Your task to perform on an android device: What's on my calendar tomorrow? Image 0: 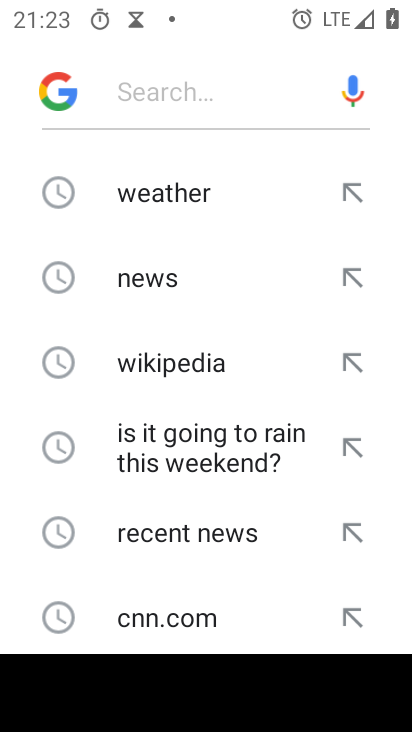
Step 0: press home button
Your task to perform on an android device: What's on my calendar tomorrow? Image 1: 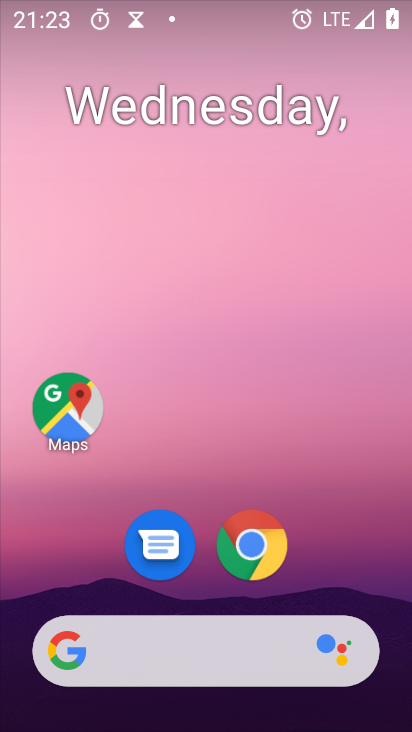
Step 1: click (74, 657)
Your task to perform on an android device: What's on my calendar tomorrow? Image 2: 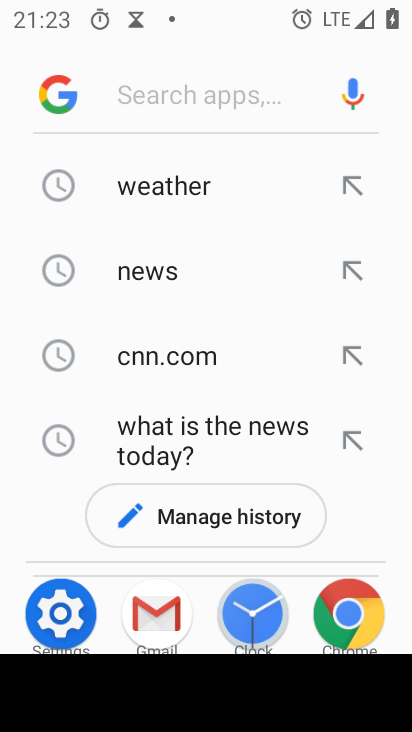
Step 2: press home button
Your task to perform on an android device: What's on my calendar tomorrow? Image 3: 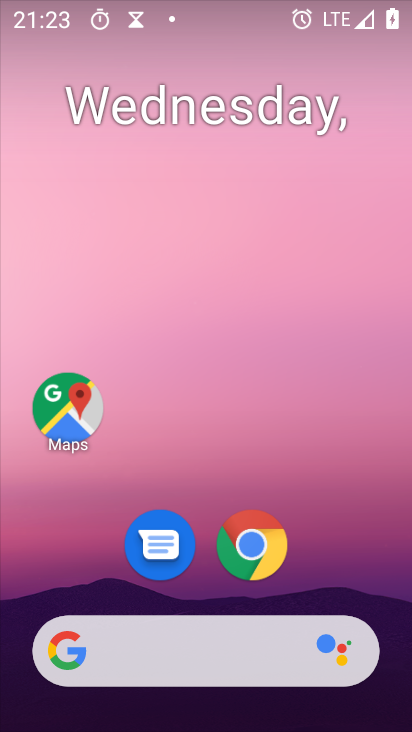
Step 3: drag from (154, 635) to (321, 112)
Your task to perform on an android device: What's on my calendar tomorrow? Image 4: 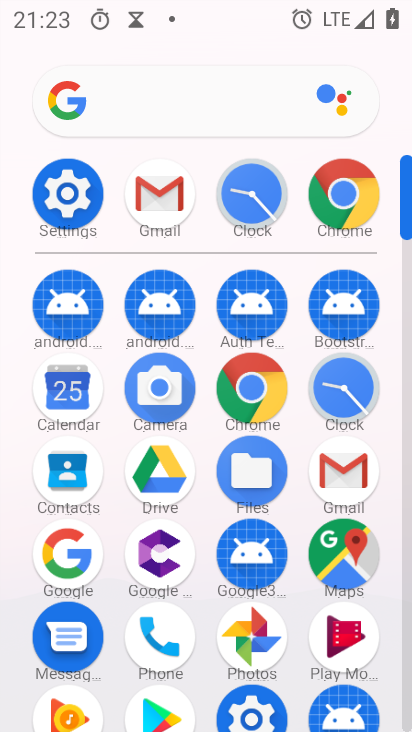
Step 4: click (63, 389)
Your task to perform on an android device: What's on my calendar tomorrow? Image 5: 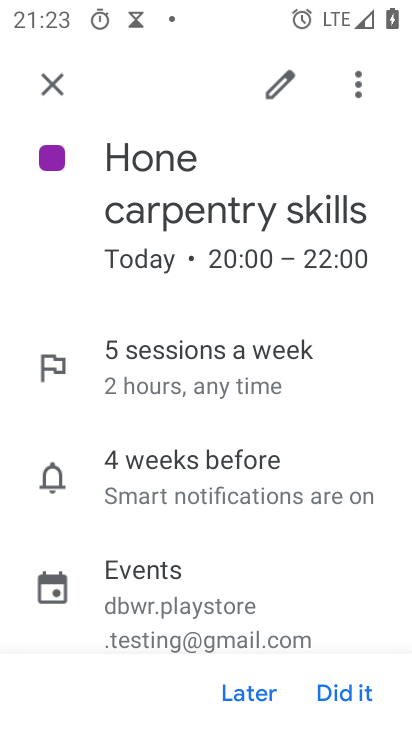
Step 5: click (56, 91)
Your task to perform on an android device: What's on my calendar tomorrow? Image 6: 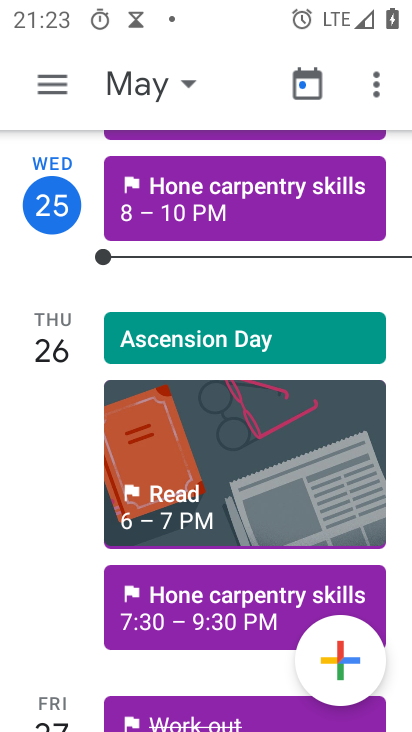
Step 6: click (138, 76)
Your task to perform on an android device: What's on my calendar tomorrow? Image 7: 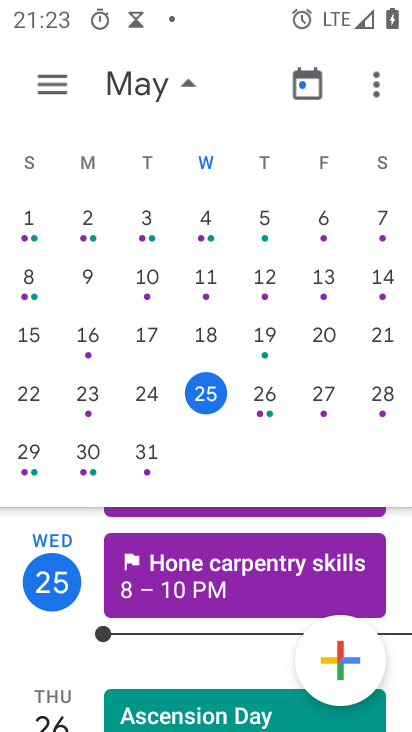
Step 7: click (265, 398)
Your task to perform on an android device: What's on my calendar tomorrow? Image 8: 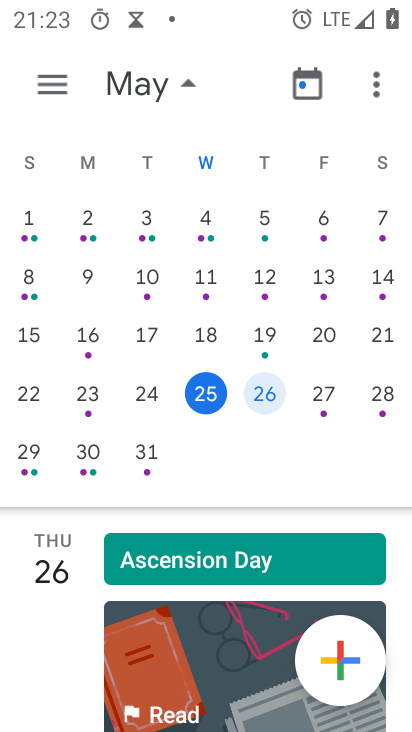
Step 8: click (57, 77)
Your task to perform on an android device: What's on my calendar tomorrow? Image 9: 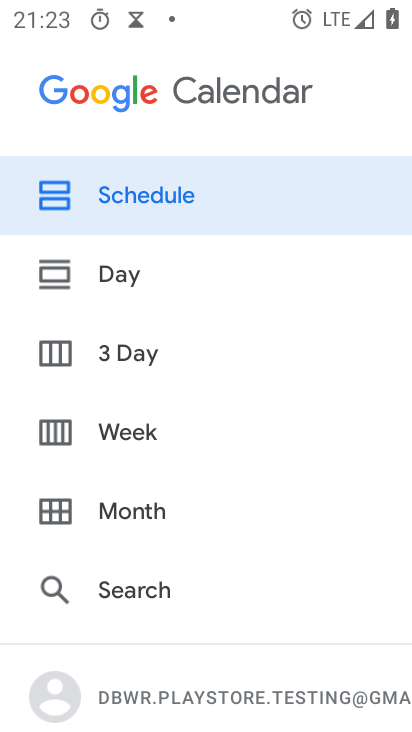
Step 9: click (138, 283)
Your task to perform on an android device: What's on my calendar tomorrow? Image 10: 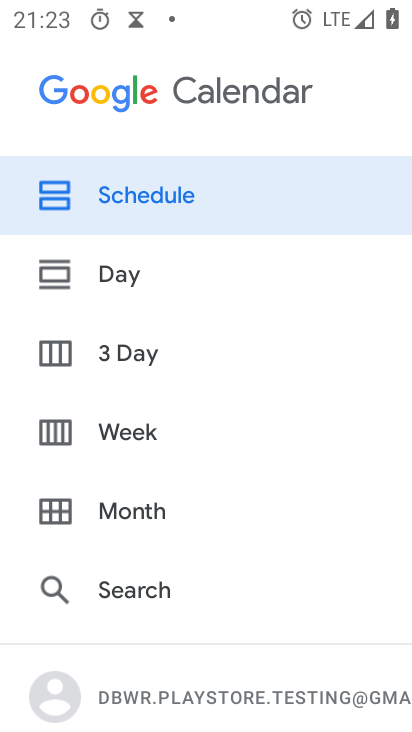
Step 10: click (117, 278)
Your task to perform on an android device: What's on my calendar tomorrow? Image 11: 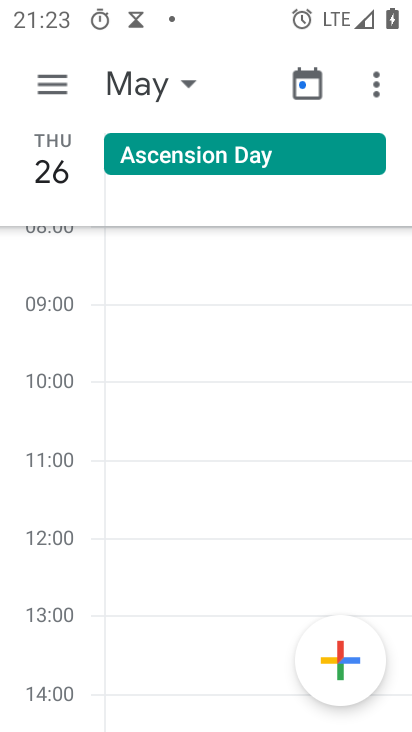
Step 11: click (51, 81)
Your task to perform on an android device: What's on my calendar tomorrow? Image 12: 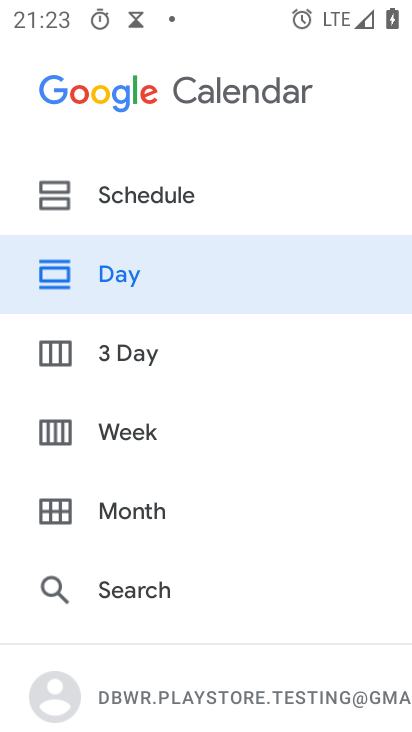
Step 12: click (129, 194)
Your task to perform on an android device: What's on my calendar tomorrow? Image 13: 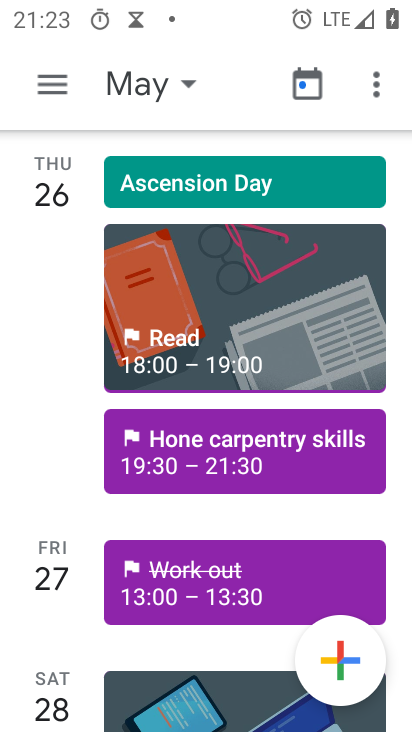
Step 13: click (199, 447)
Your task to perform on an android device: What's on my calendar tomorrow? Image 14: 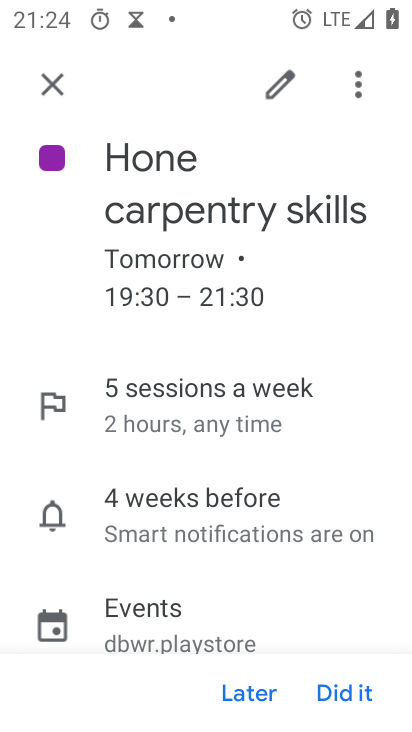
Step 14: task complete